Your task to perform on an android device: empty trash in google photos Image 0: 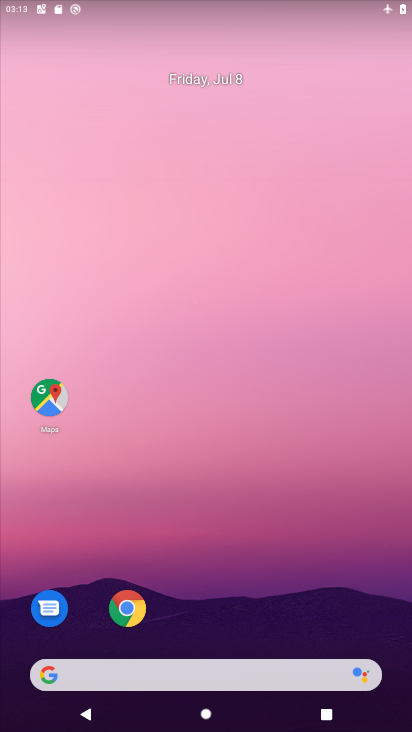
Step 0: drag from (211, 625) to (213, 328)
Your task to perform on an android device: empty trash in google photos Image 1: 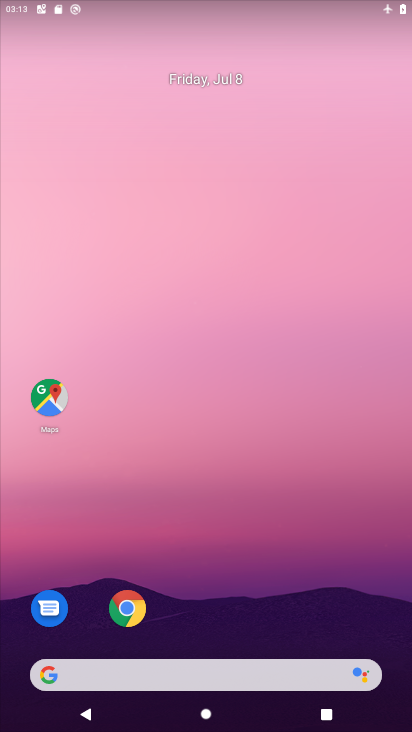
Step 1: drag from (241, 649) to (218, 208)
Your task to perform on an android device: empty trash in google photos Image 2: 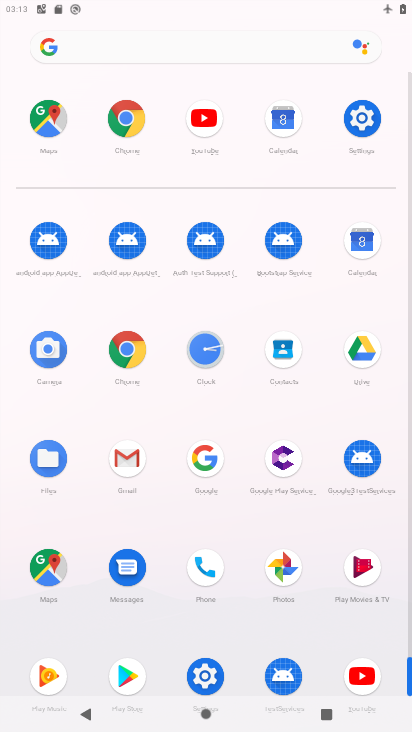
Step 2: click (132, 451)
Your task to perform on an android device: empty trash in google photos Image 3: 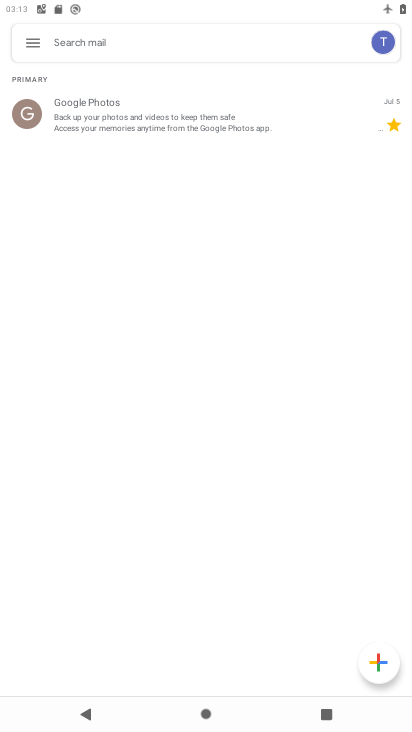
Step 3: click (42, 36)
Your task to perform on an android device: empty trash in google photos Image 4: 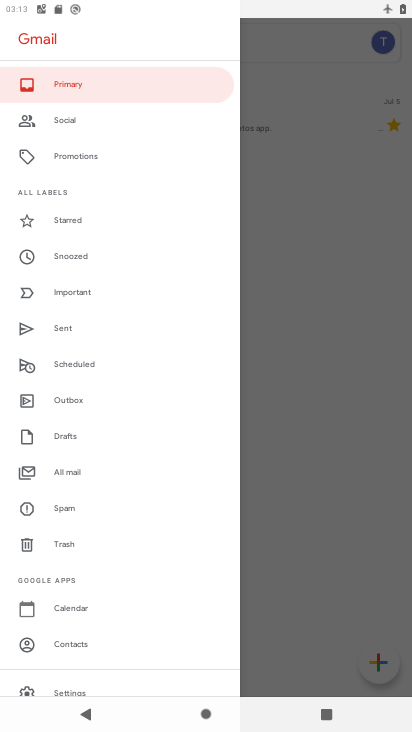
Step 4: click (73, 545)
Your task to perform on an android device: empty trash in google photos Image 5: 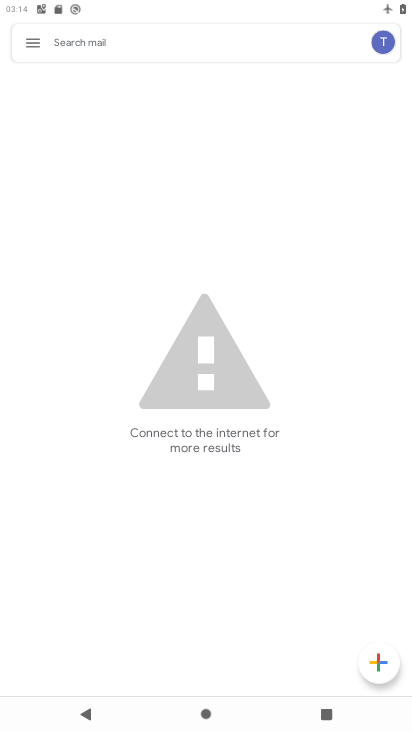
Step 5: task complete